Your task to perform on an android device: turn smart compose on in the gmail app Image 0: 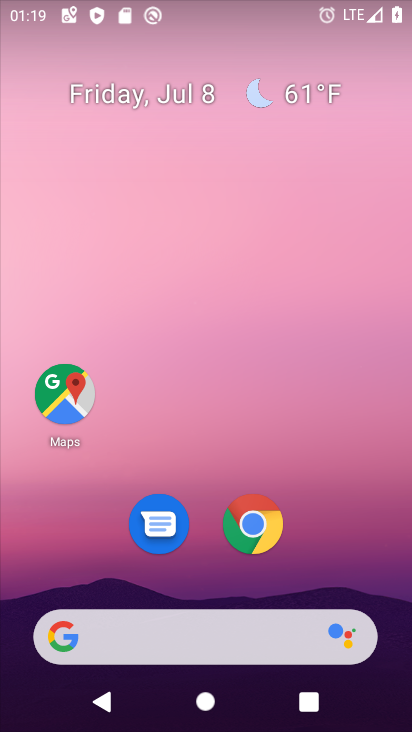
Step 0: drag from (208, 444) to (196, 42)
Your task to perform on an android device: turn smart compose on in the gmail app Image 1: 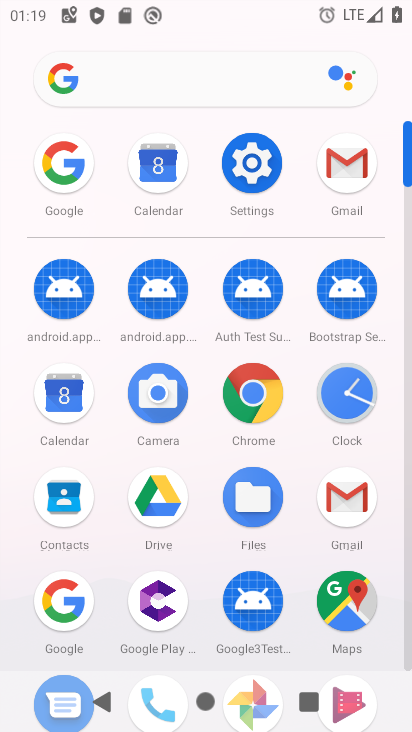
Step 1: click (361, 487)
Your task to perform on an android device: turn smart compose on in the gmail app Image 2: 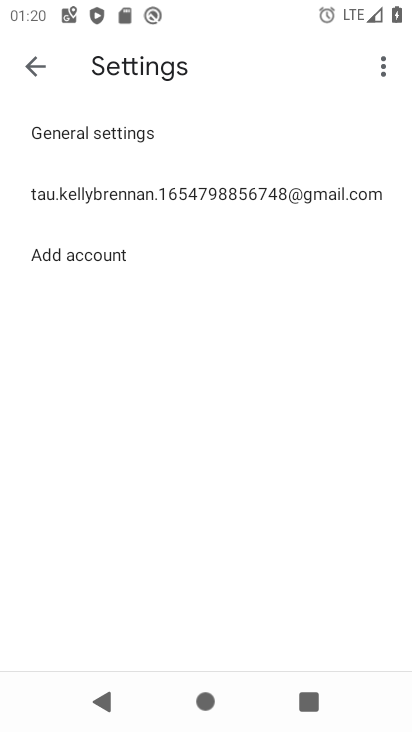
Step 2: click (322, 191)
Your task to perform on an android device: turn smart compose on in the gmail app Image 3: 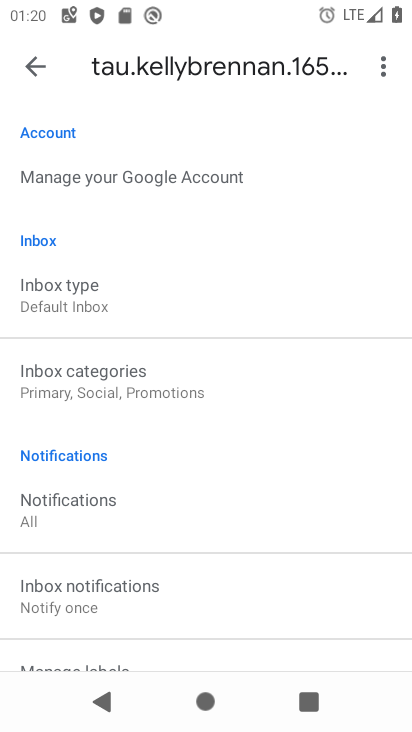
Step 3: drag from (248, 504) to (259, 186)
Your task to perform on an android device: turn smart compose on in the gmail app Image 4: 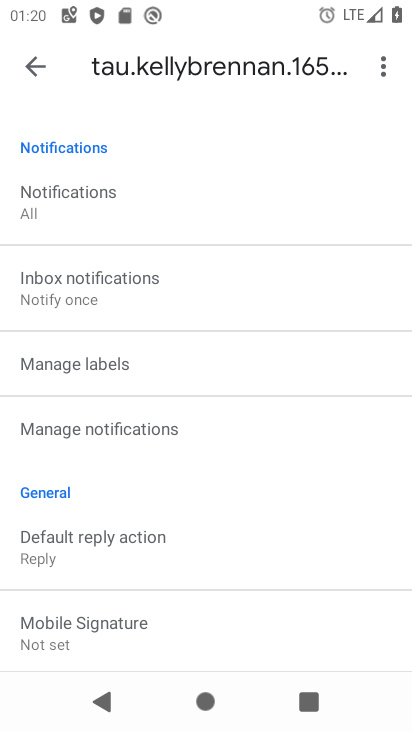
Step 4: click (118, 365)
Your task to perform on an android device: turn smart compose on in the gmail app Image 5: 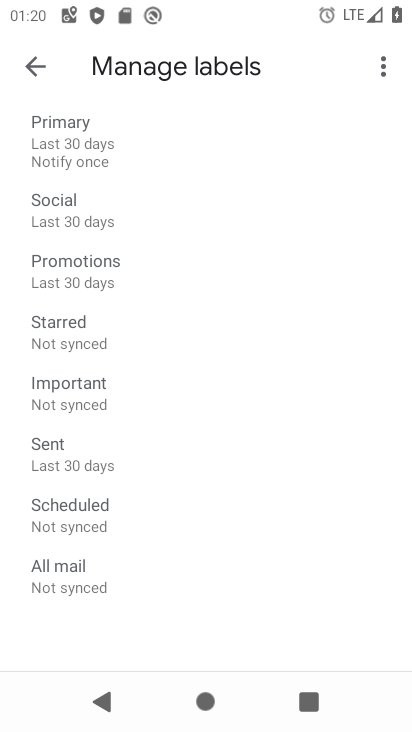
Step 5: click (37, 67)
Your task to perform on an android device: turn smart compose on in the gmail app Image 6: 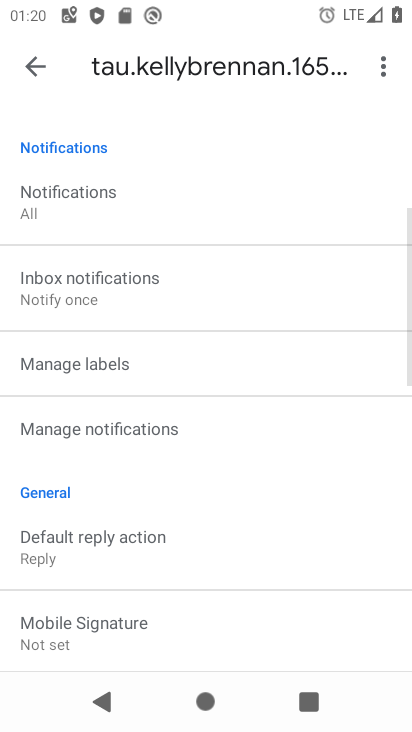
Step 6: task complete